Your task to perform on an android device: Go to ESPN.com Image 0: 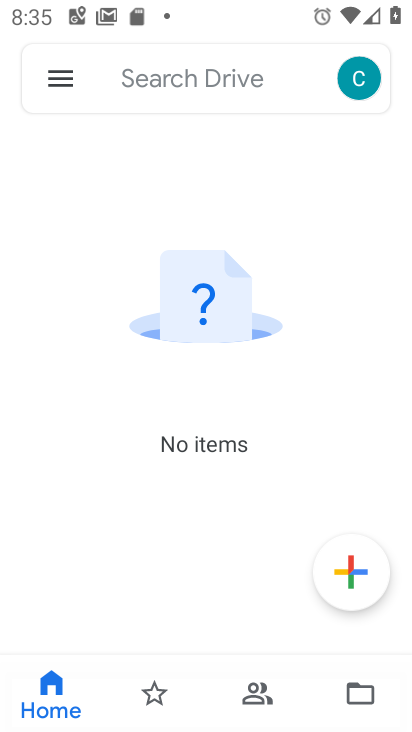
Step 0: press home button
Your task to perform on an android device: Go to ESPN.com Image 1: 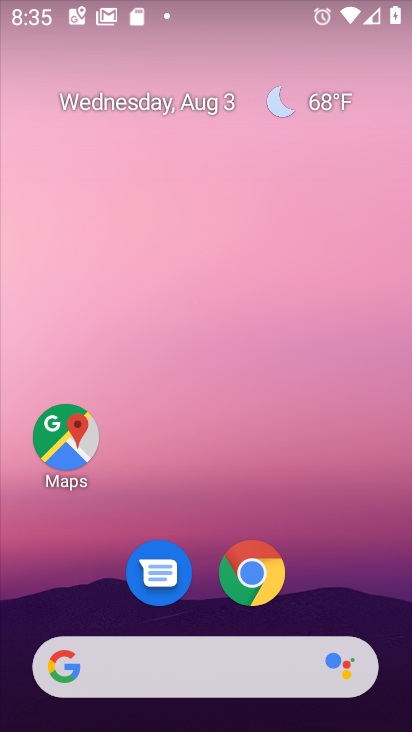
Step 1: click (252, 578)
Your task to perform on an android device: Go to ESPN.com Image 2: 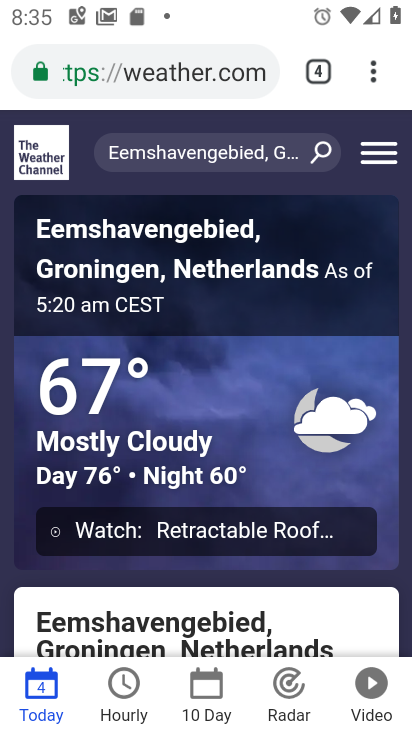
Step 2: click (172, 79)
Your task to perform on an android device: Go to ESPN.com Image 3: 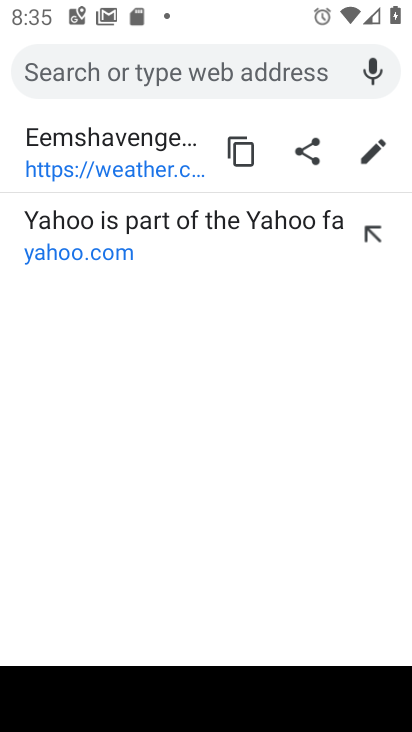
Step 3: type "espn.com"
Your task to perform on an android device: Go to ESPN.com Image 4: 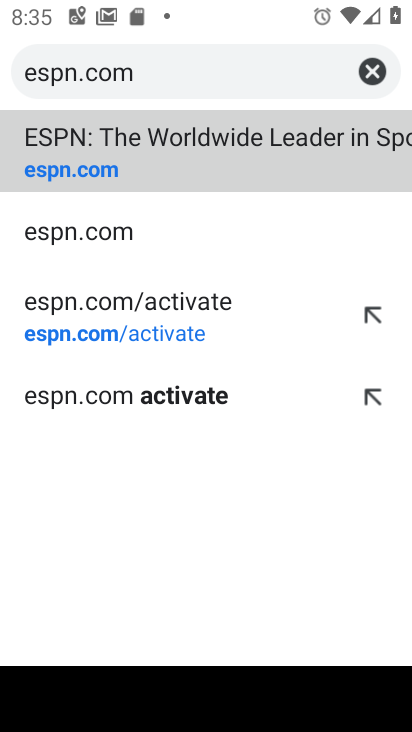
Step 4: click (101, 141)
Your task to perform on an android device: Go to ESPN.com Image 5: 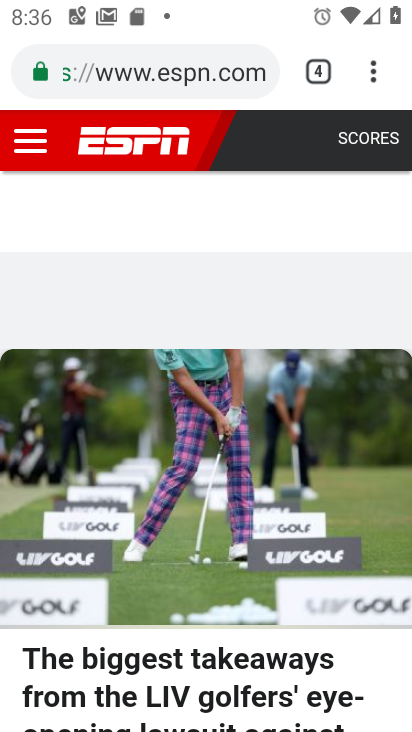
Step 5: task complete